Your task to perform on an android device: Go to battery settings Image 0: 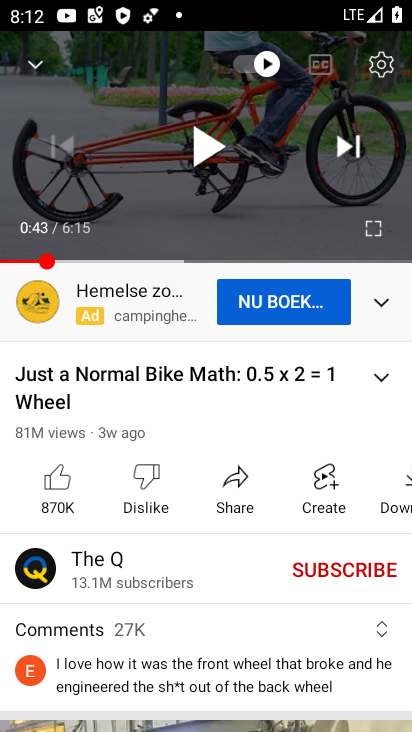
Step 0: task complete